Your task to perform on an android device: Open settings Image 0: 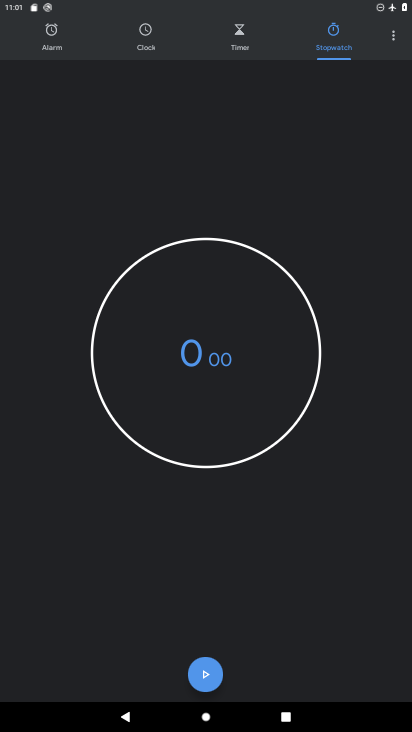
Step 0: press home button
Your task to perform on an android device: Open settings Image 1: 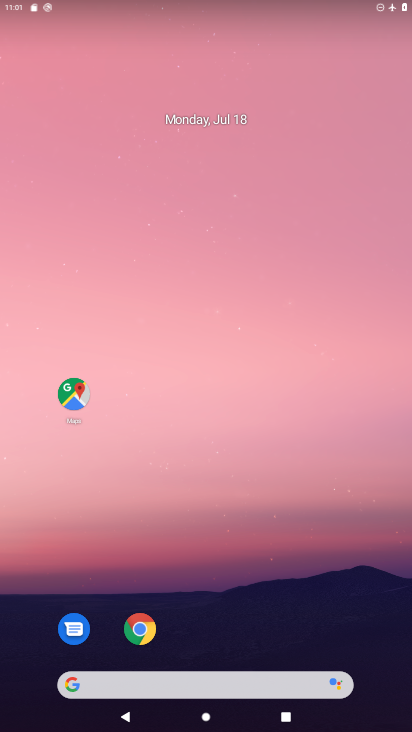
Step 1: drag from (274, 532) to (241, 145)
Your task to perform on an android device: Open settings Image 2: 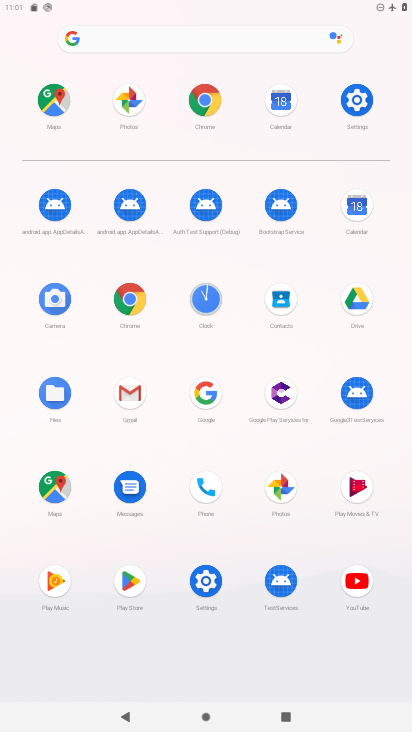
Step 2: click (365, 101)
Your task to perform on an android device: Open settings Image 3: 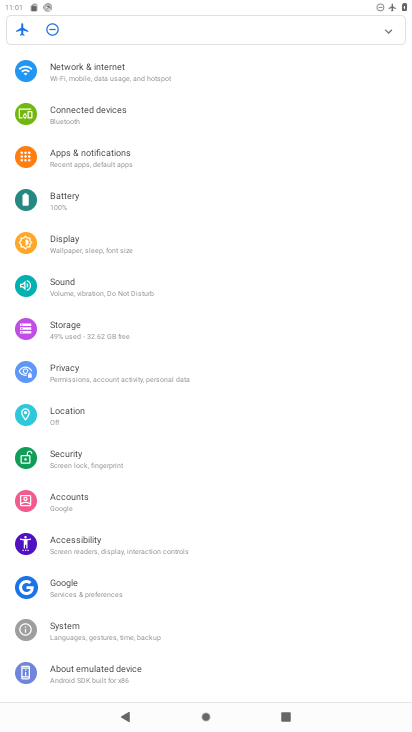
Step 3: task complete